Your task to perform on an android device: turn on airplane mode Image 0: 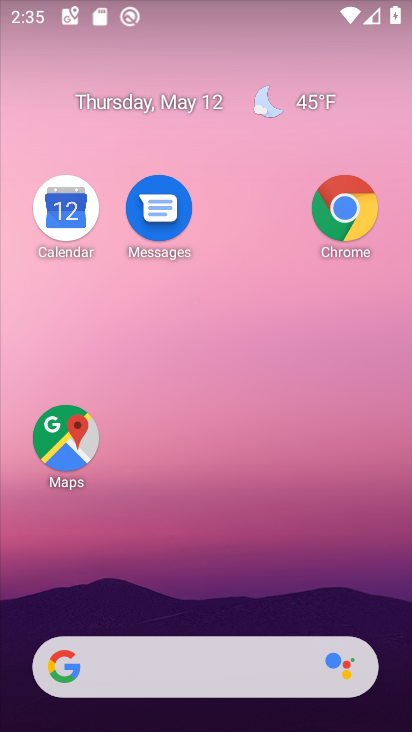
Step 0: drag from (199, 230) to (199, 164)
Your task to perform on an android device: turn on airplane mode Image 1: 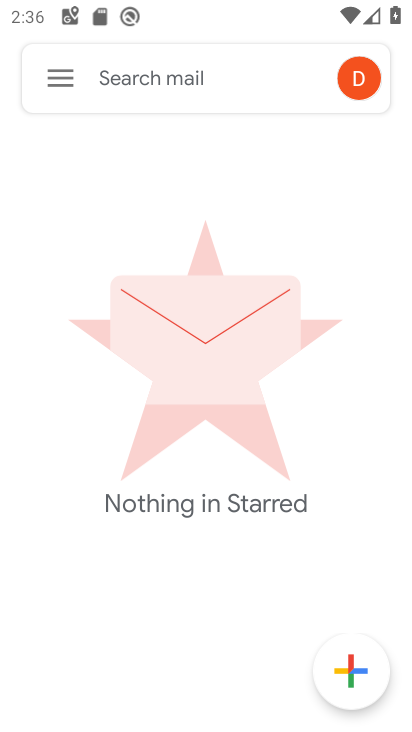
Step 1: press home button
Your task to perform on an android device: turn on airplane mode Image 2: 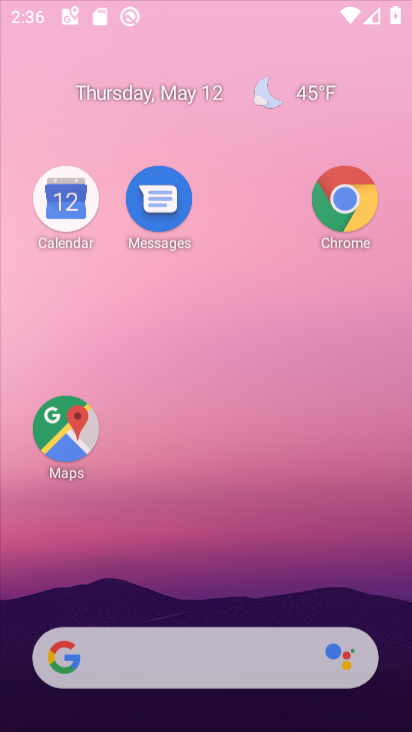
Step 2: drag from (186, 569) to (217, 28)
Your task to perform on an android device: turn on airplane mode Image 3: 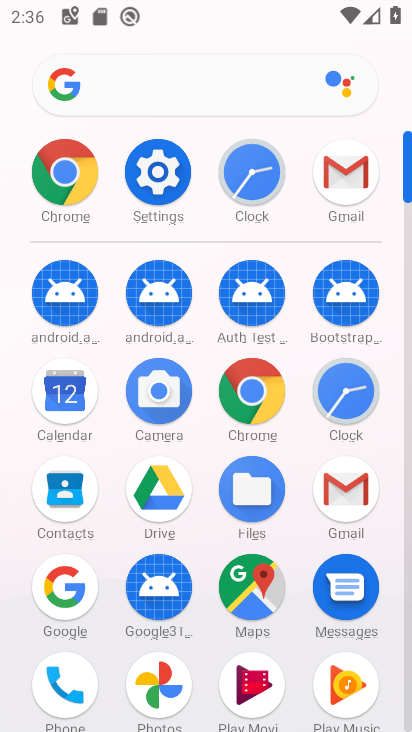
Step 3: click (154, 159)
Your task to perform on an android device: turn on airplane mode Image 4: 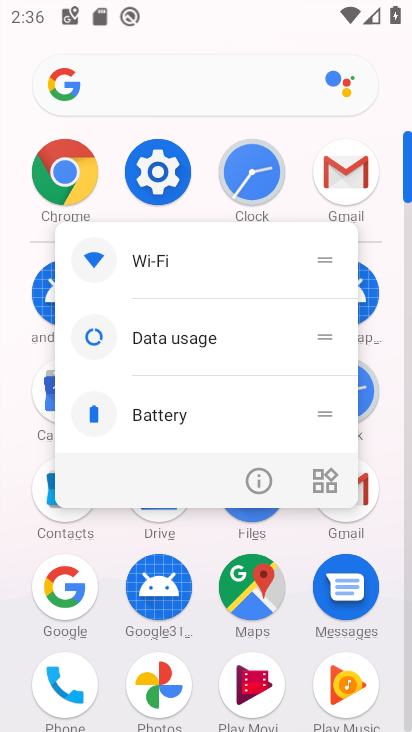
Step 4: click (248, 476)
Your task to perform on an android device: turn on airplane mode Image 5: 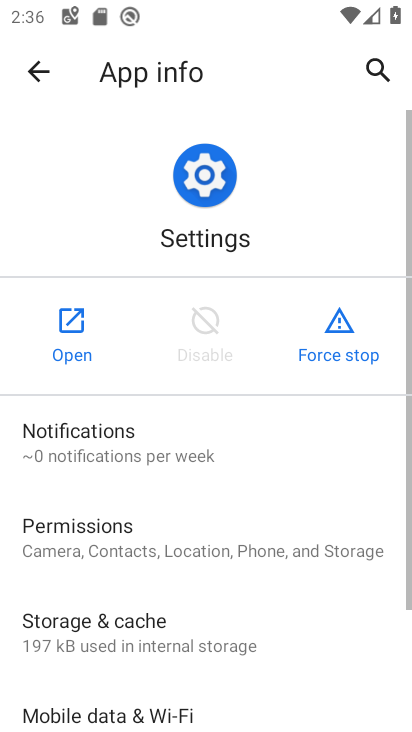
Step 5: click (64, 316)
Your task to perform on an android device: turn on airplane mode Image 6: 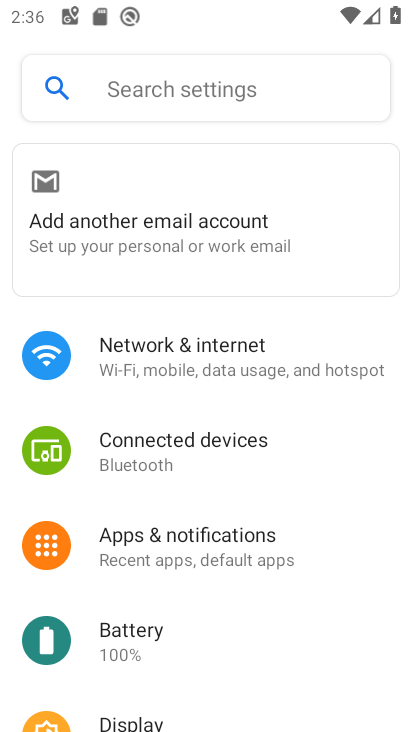
Step 6: click (197, 368)
Your task to perform on an android device: turn on airplane mode Image 7: 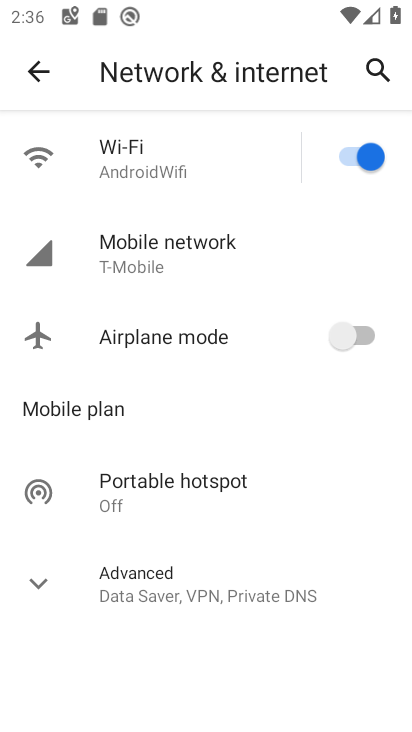
Step 7: click (204, 356)
Your task to perform on an android device: turn on airplane mode Image 8: 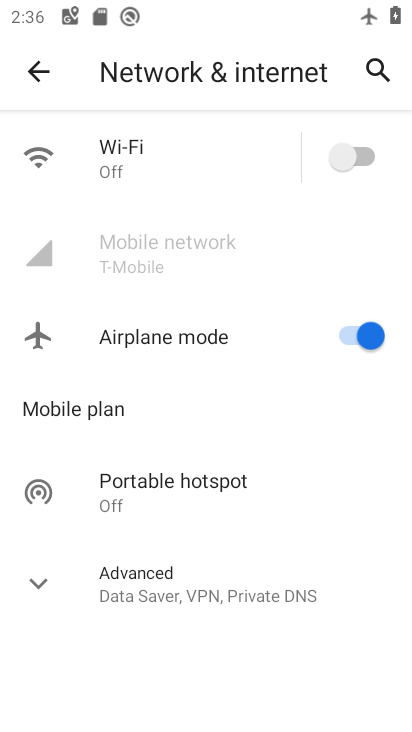
Step 8: task complete